Your task to perform on an android device: find snoozed emails in the gmail app Image 0: 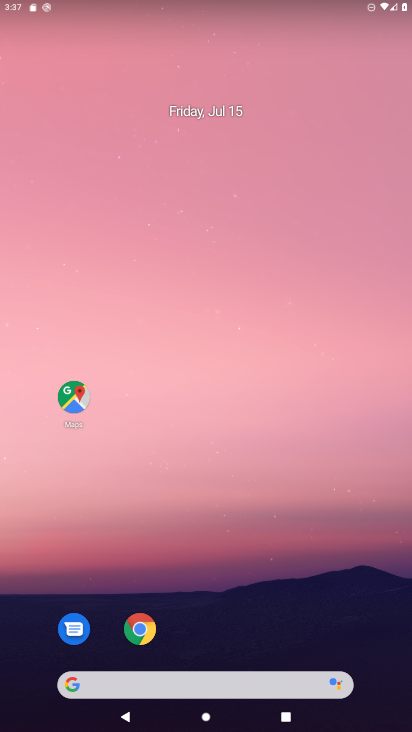
Step 0: drag from (410, 585) to (410, 157)
Your task to perform on an android device: find snoozed emails in the gmail app Image 1: 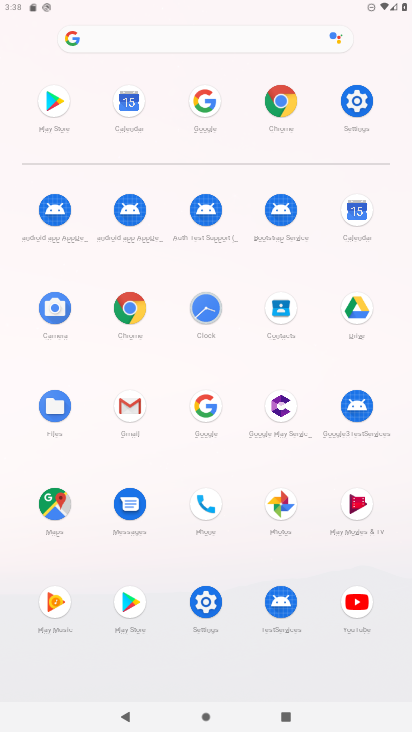
Step 1: click (140, 427)
Your task to perform on an android device: find snoozed emails in the gmail app Image 2: 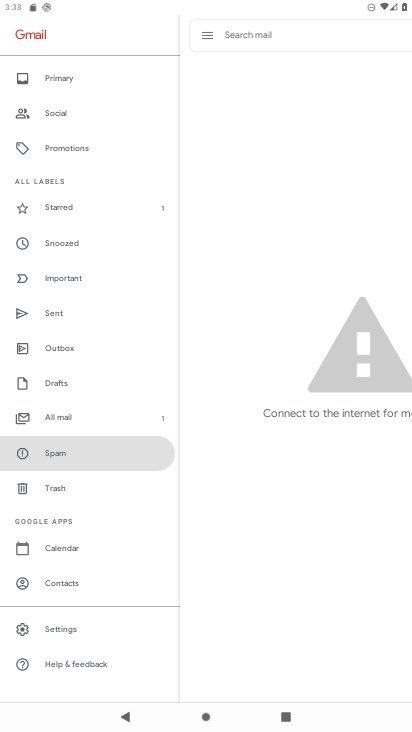
Step 2: click (76, 246)
Your task to perform on an android device: find snoozed emails in the gmail app Image 3: 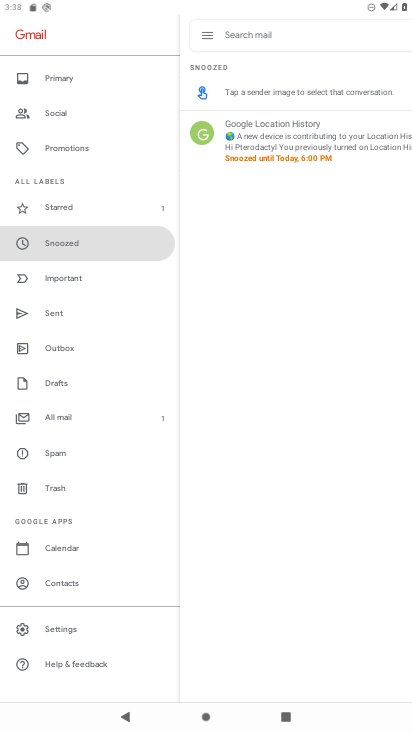
Step 3: task complete